Your task to perform on an android device: check the backup settings in the google photos Image 0: 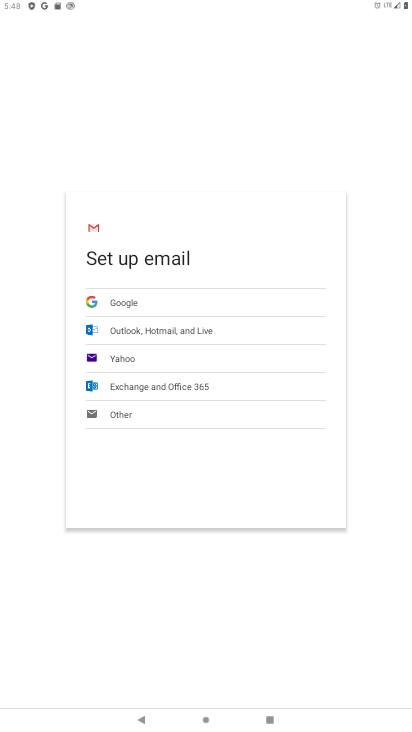
Step 0: press home button
Your task to perform on an android device: check the backup settings in the google photos Image 1: 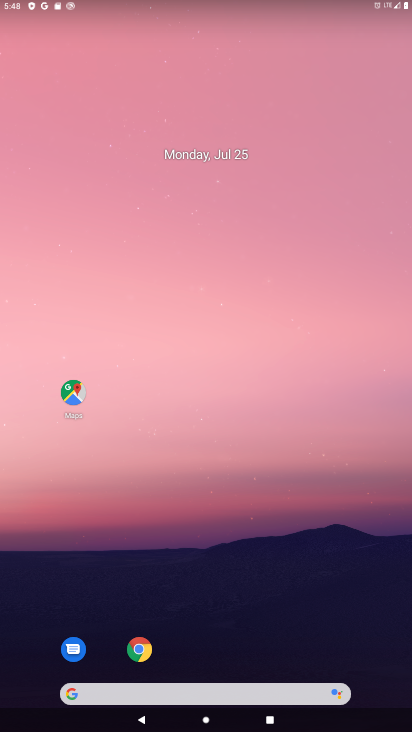
Step 1: drag from (188, 665) to (371, 13)
Your task to perform on an android device: check the backup settings in the google photos Image 2: 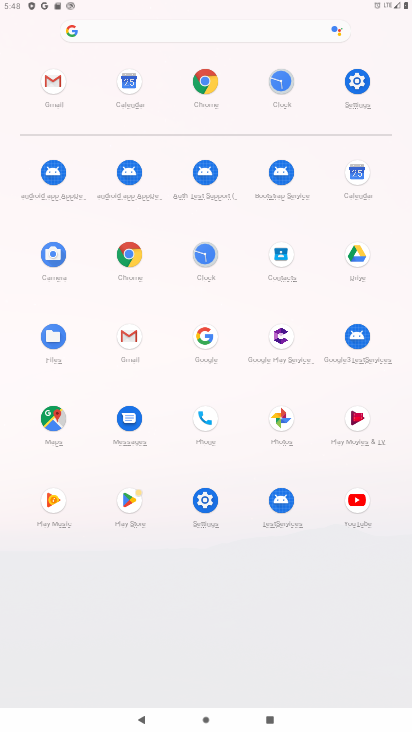
Step 2: click (272, 420)
Your task to perform on an android device: check the backup settings in the google photos Image 3: 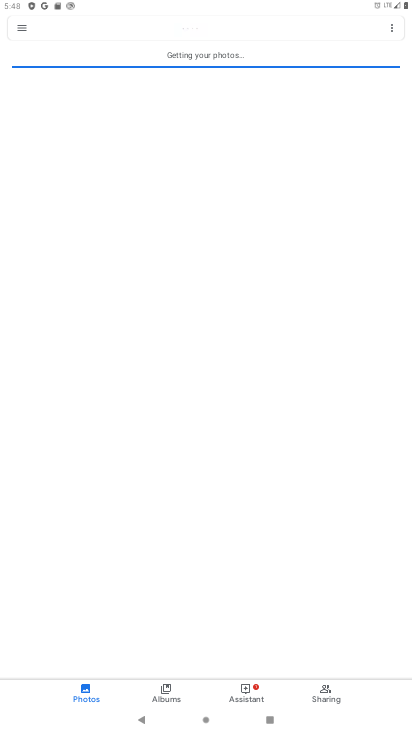
Step 3: click (21, 24)
Your task to perform on an android device: check the backup settings in the google photos Image 4: 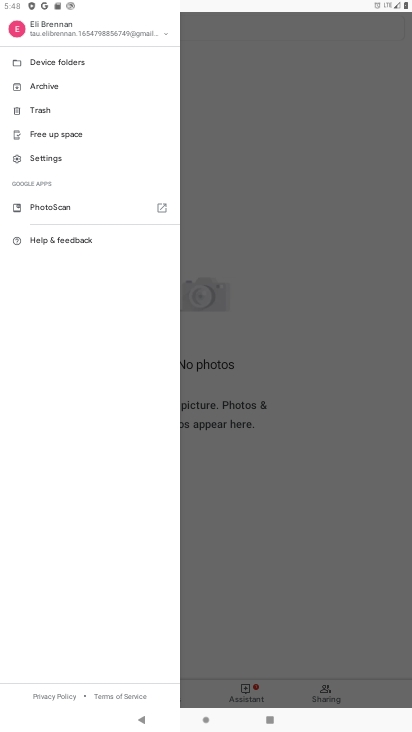
Step 4: click (52, 158)
Your task to perform on an android device: check the backup settings in the google photos Image 5: 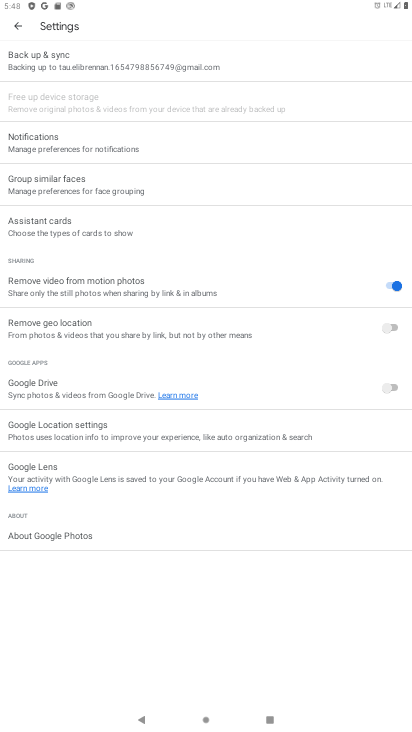
Step 5: task complete